Your task to perform on an android device: Search for hotels in Las Vegas Image 0: 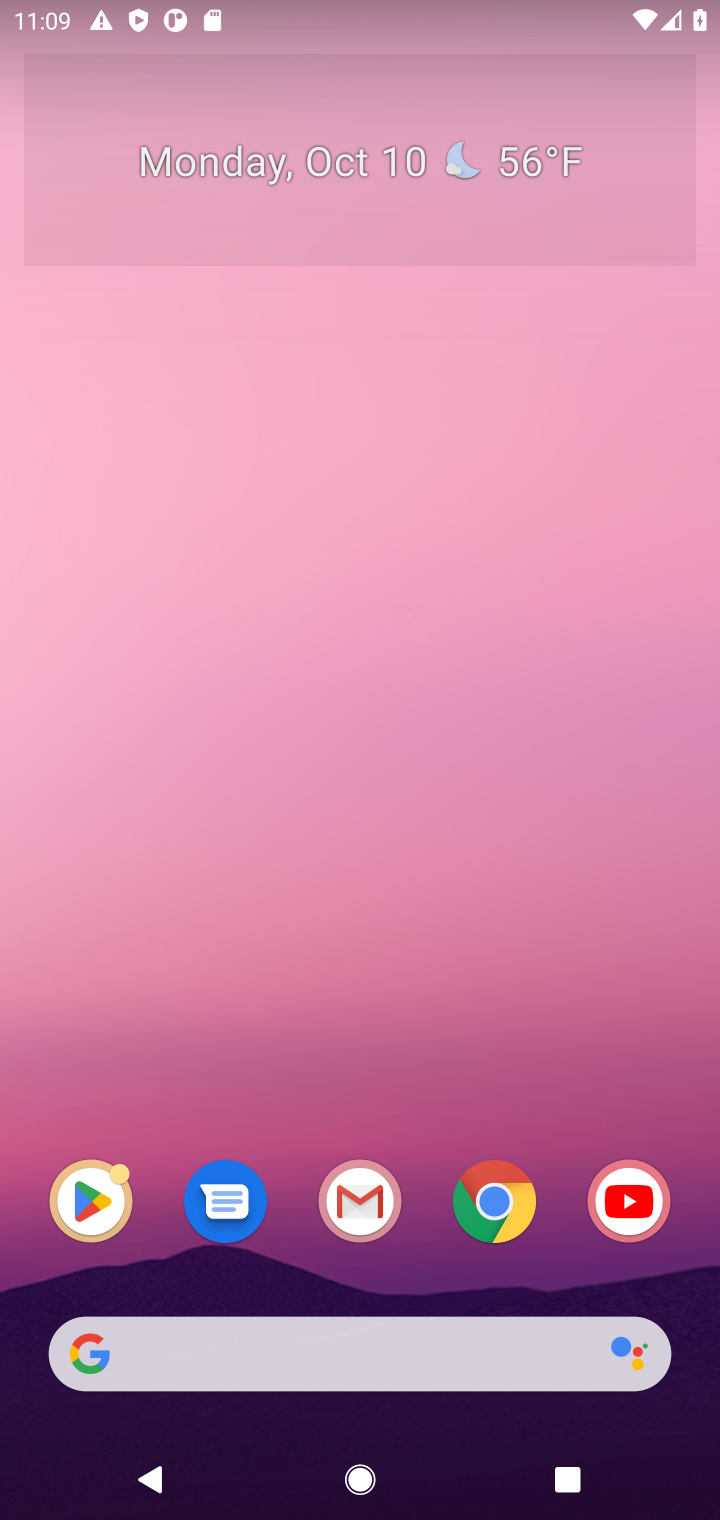
Step 0: click (98, 1357)
Your task to perform on an android device: Search for hotels in Las Vegas Image 1: 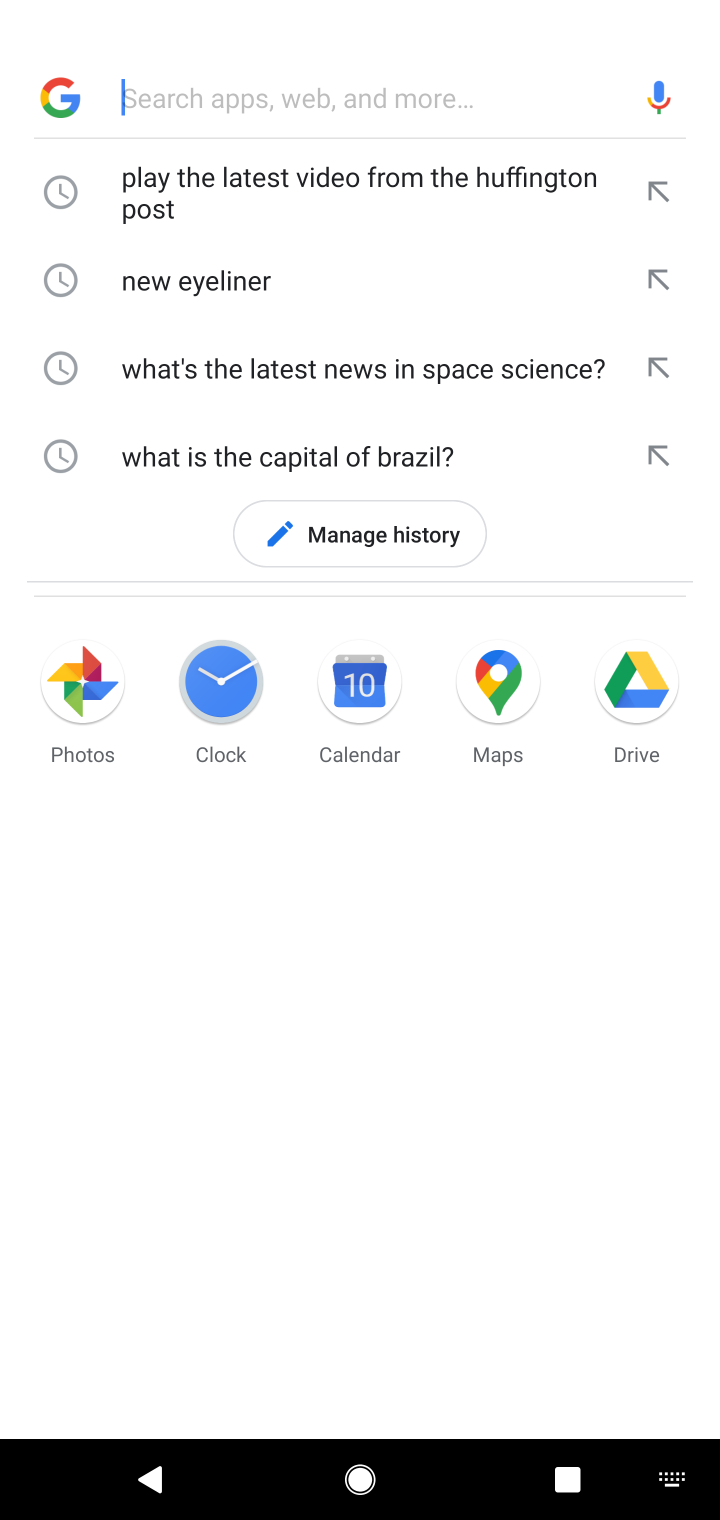
Step 1: type "hotels in Las Vegas"
Your task to perform on an android device: Search for hotels in Las Vegas Image 2: 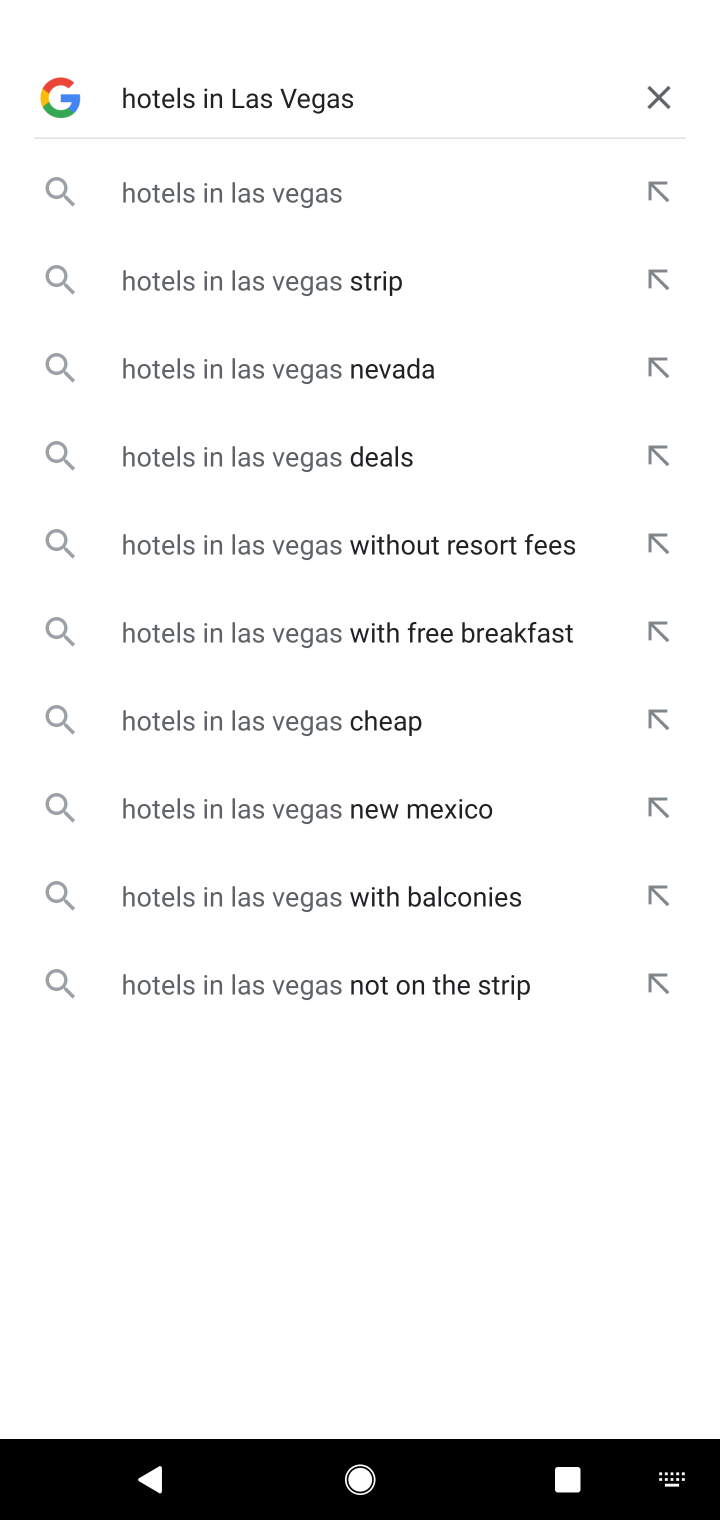
Step 2: click (286, 196)
Your task to perform on an android device: Search for hotels in Las Vegas Image 3: 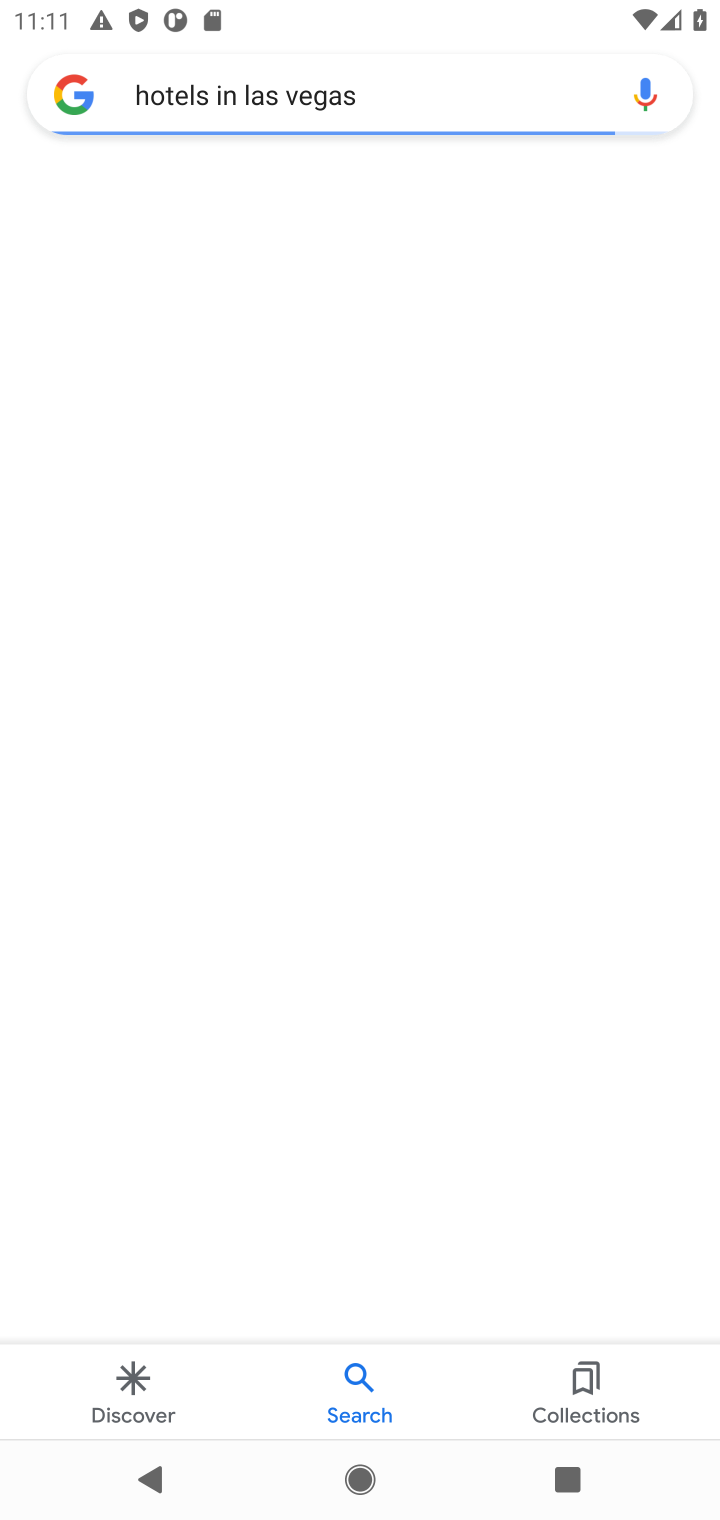
Step 3: task complete